Your task to perform on an android device: Open accessibility settings Image 0: 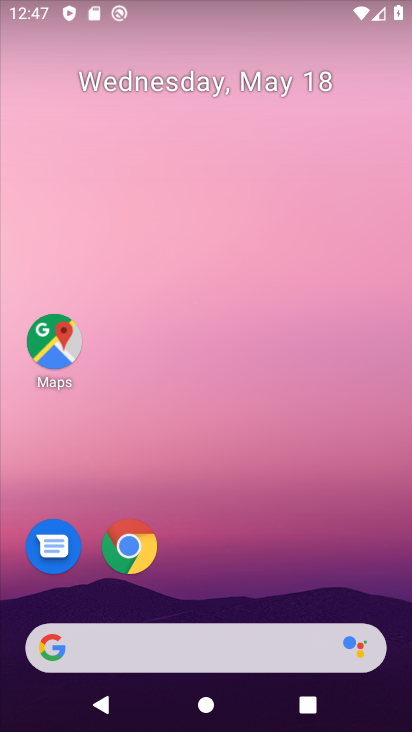
Step 0: drag from (217, 514) to (300, 162)
Your task to perform on an android device: Open accessibility settings Image 1: 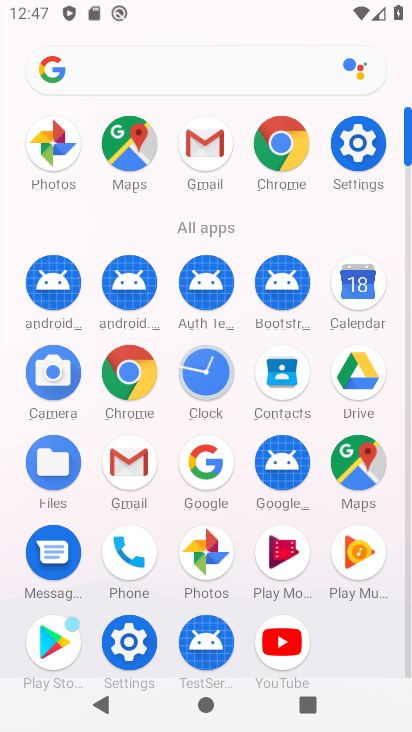
Step 1: drag from (158, 676) to (187, 550)
Your task to perform on an android device: Open accessibility settings Image 2: 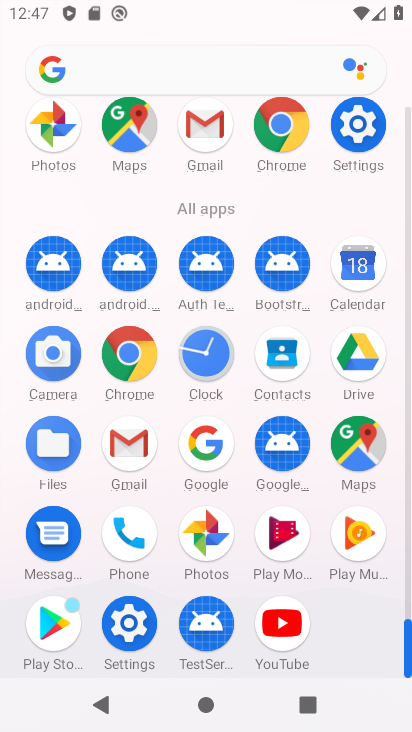
Step 2: click (136, 624)
Your task to perform on an android device: Open accessibility settings Image 3: 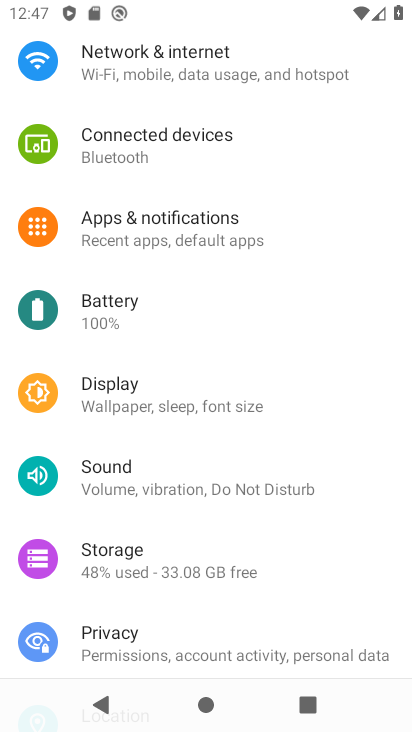
Step 3: drag from (137, 578) to (260, 111)
Your task to perform on an android device: Open accessibility settings Image 4: 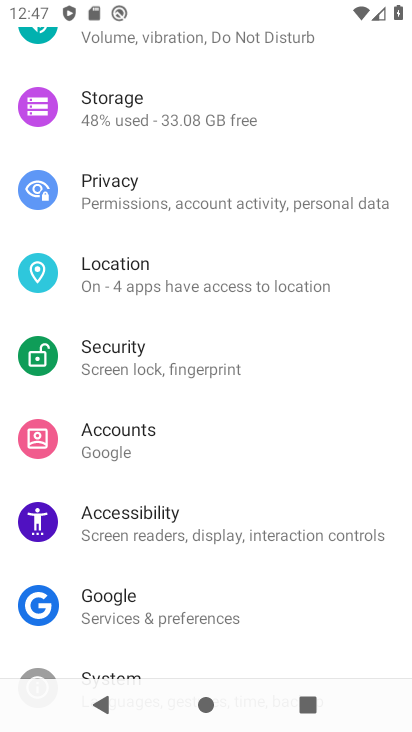
Step 4: click (153, 544)
Your task to perform on an android device: Open accessibility settings Image 5: 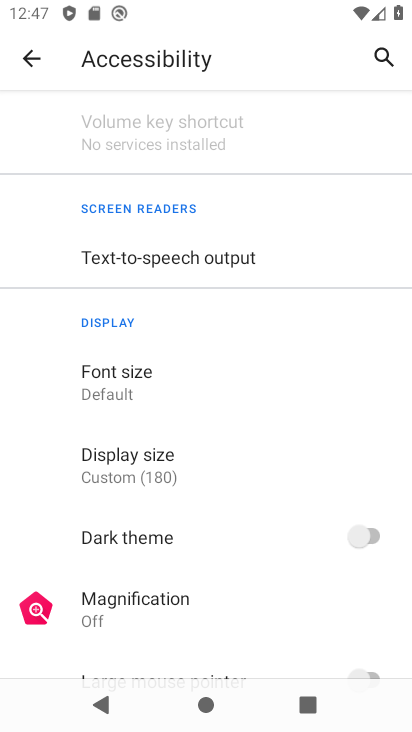
Step 5: task complete